Your task to perform on an android device: What is the speed of a rocket? Image 0: 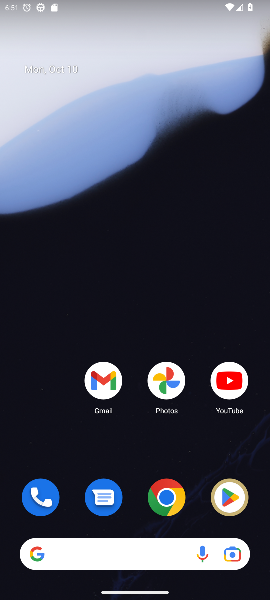
Step 0: drag from (149, 496) to (153, 192)
Your task to perform on an android device: What is the speed of a rocket? Image 1: 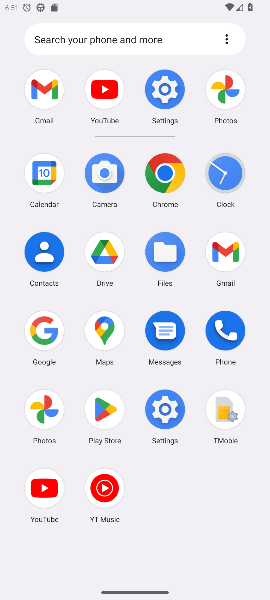
Step 1: click (44, 322)
Your task to perform on an android device: What is the speed of a rocket? Image 2: 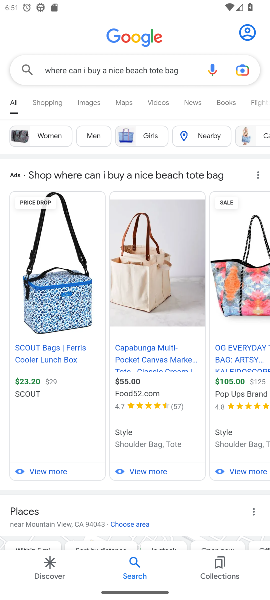
Step 2: click (136, 70)
Your task to perform on an android device: What is the speed of a rocket? Image 3: 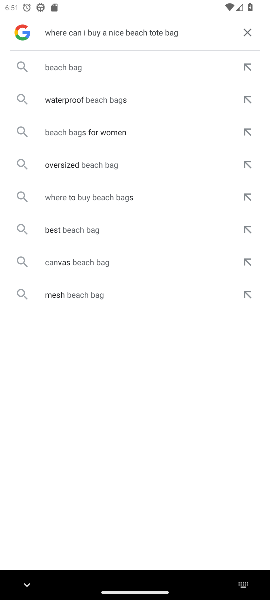
Step 3: click (243, 31)
Your task to perform on an android device: What is the speed of a rocket? Image 4: 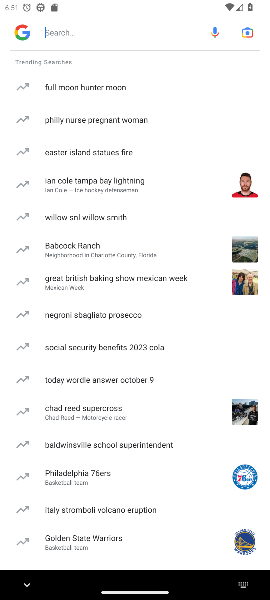
Step 4: click (123, 32)
Your task to perform on an android device: What is the speed of a rocket? Image 5: 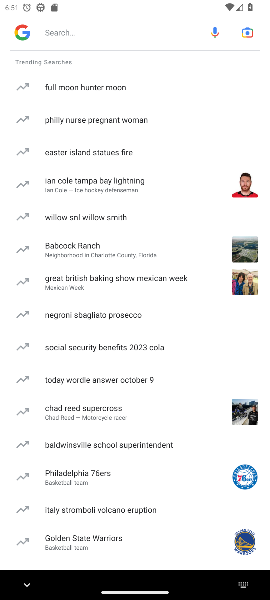
Step 5: type "What is the speed of a rocket? "
Your task to perform on an android device: What is the speed of a rocket? Image 6: 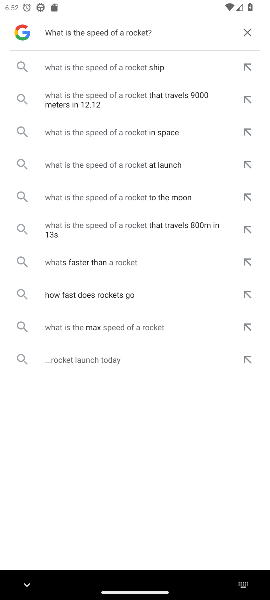
Step 6: click (120, 63)
Your task to perform on an android device: What is the speed of a rocket? Image 7: 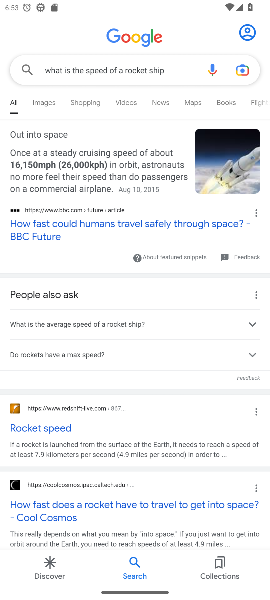
Step 7: task complete